Your task to perform on an android device: Go to Yahoo.com Image 0: 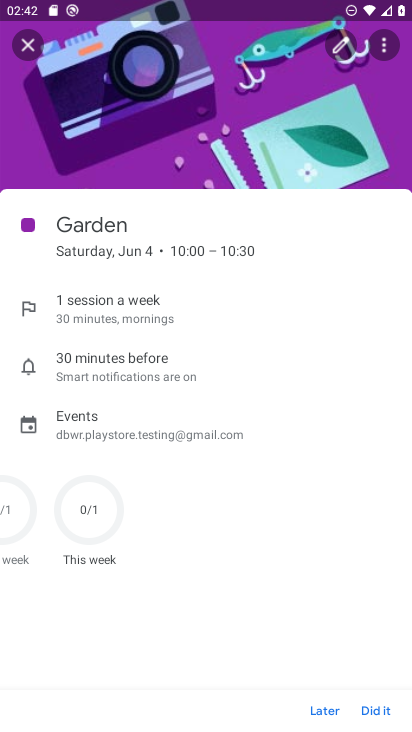
Step 0: press home button
Your task to perform on an android device: Go to Yahoo.com Image 1: 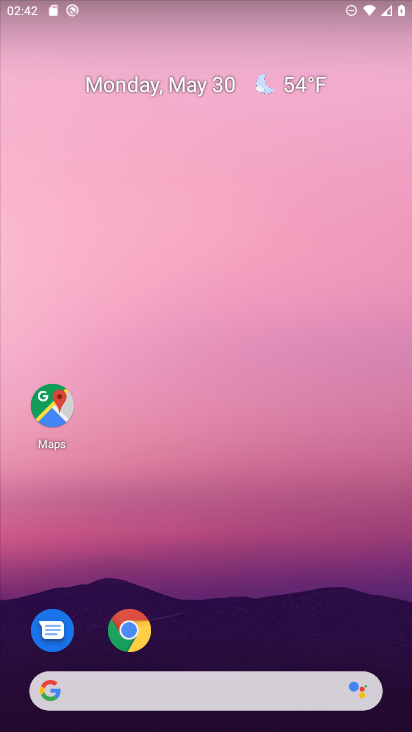
Step 1: click (137, 629)
Your task to perform on an android device: Go to Yahoo.com Image 2: 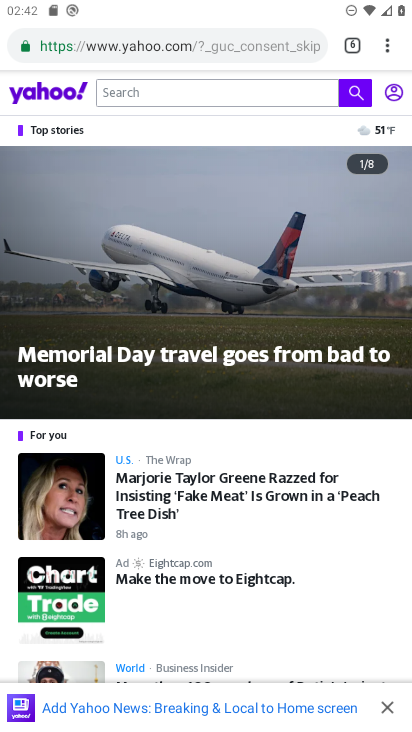
Step 2: drag from (385, 51) to (285, 95)
Your task to perform on an android device: Go to Yahoo.com Image 3: 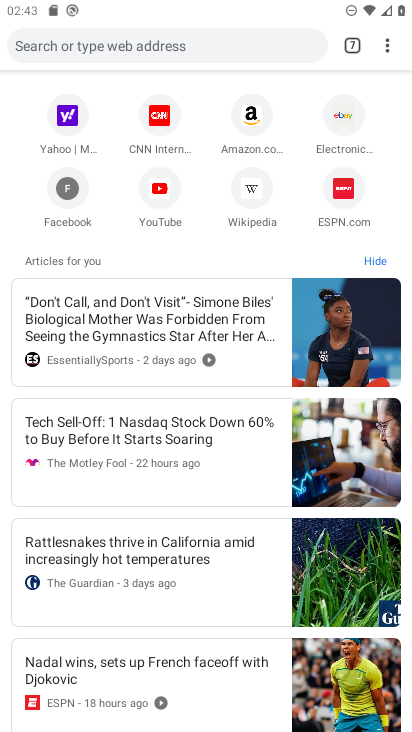
Step 3: click (68, 121)
Your task to perform on an android device: Go to Yahoo.com Image 4: 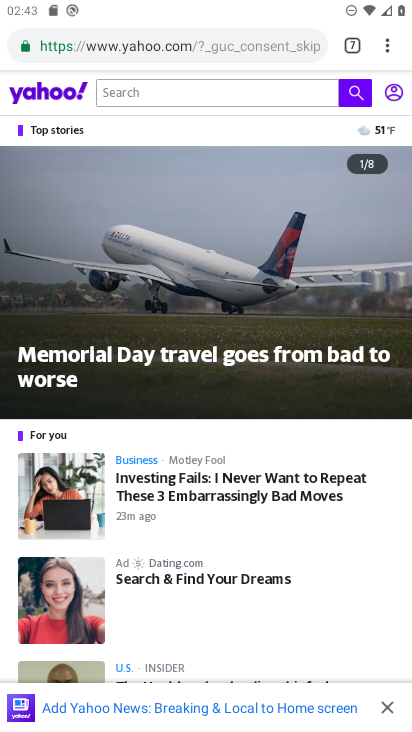
Step 4: task complete